Your task to perform on an android device: Open Amazon Image 0: 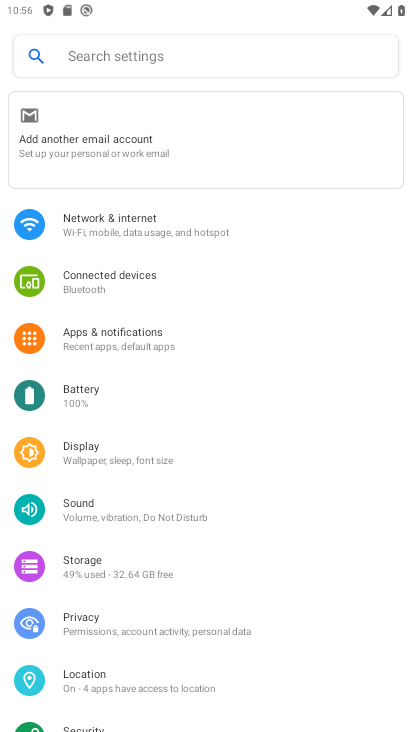
Step 0: press back button
Your task to perform on an android device: Open Amazon Image 1: 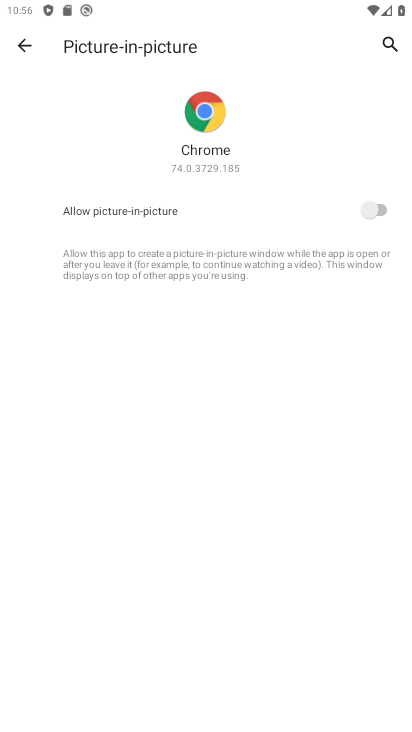
Step 1: press back button
Your task to perform on an android device: Open Amazon Image 2: 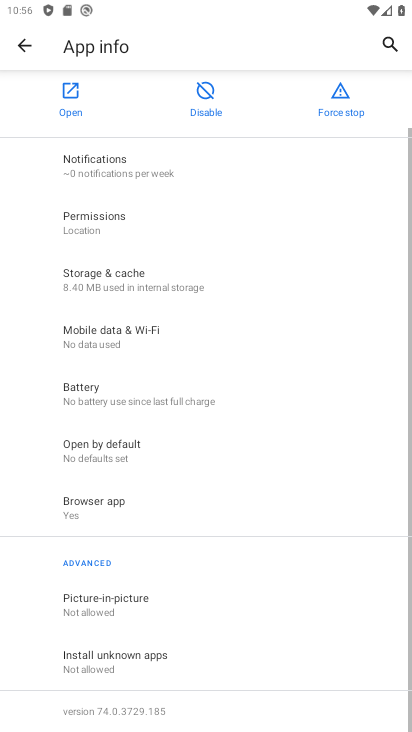
Step 2: press back button
Your task to perform on an android device: Open Amazon Image 3: 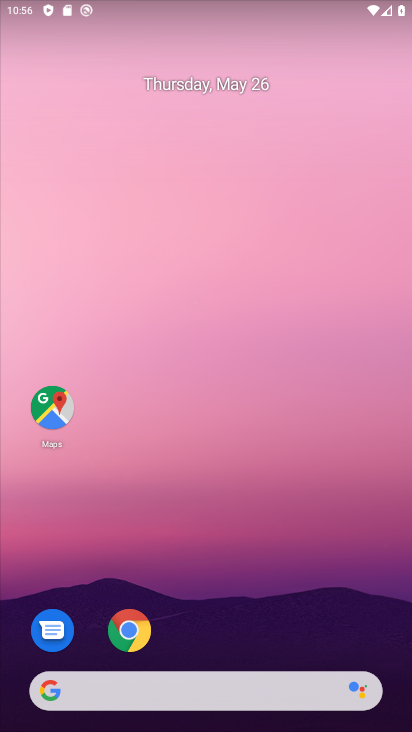
Step 3: click (127, 631)
Your task to perform on an android device: Open Amazon Image 4: 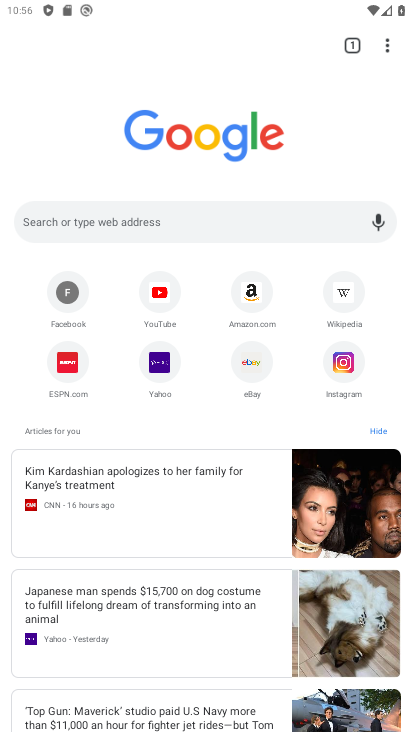
Step 4: click (179, 216)
Your task to perform on an android device: Open Amazon Image 5: 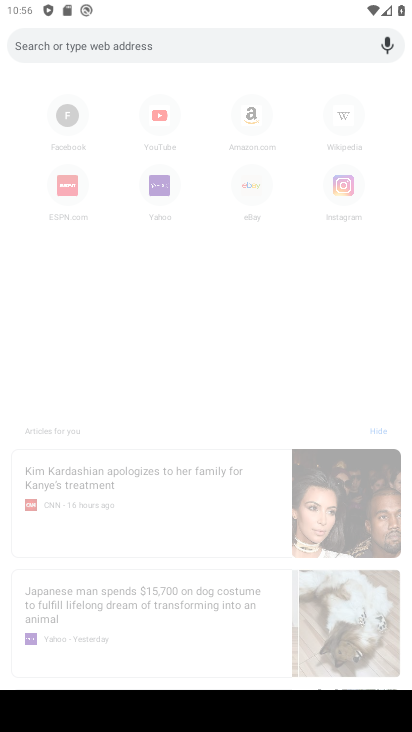
Step 5: type "Amazon"
Your task to perform on an android device: Open Amazon Image 6: 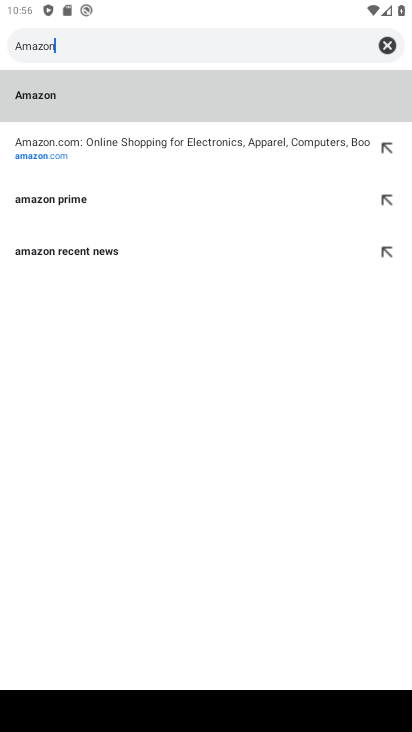
Step 6: click (223, 88)
Your task to perform on an android device: Open Amazon Image 7: 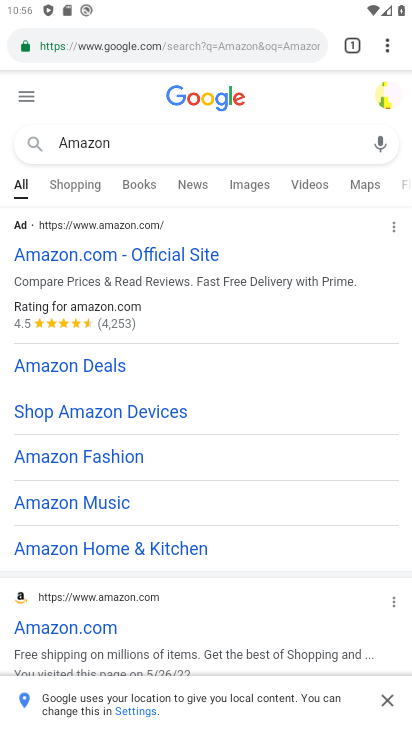
Step 7: click (101, 260)
Your task to perform on an android device: Open Amazon Image 8: 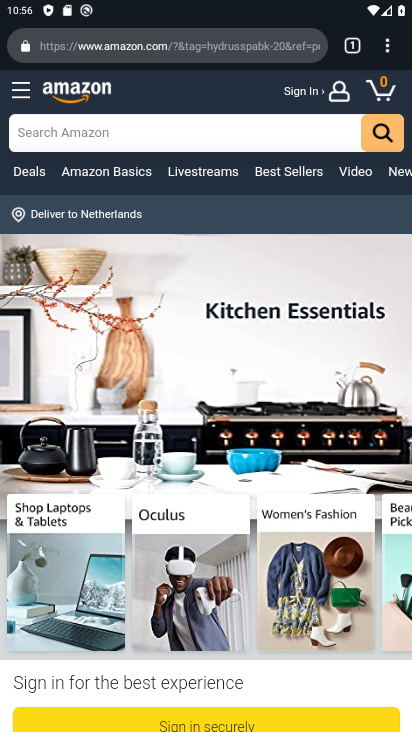
Step 8: task complete